Your task to perform on an android device: Open eBay Image 0: 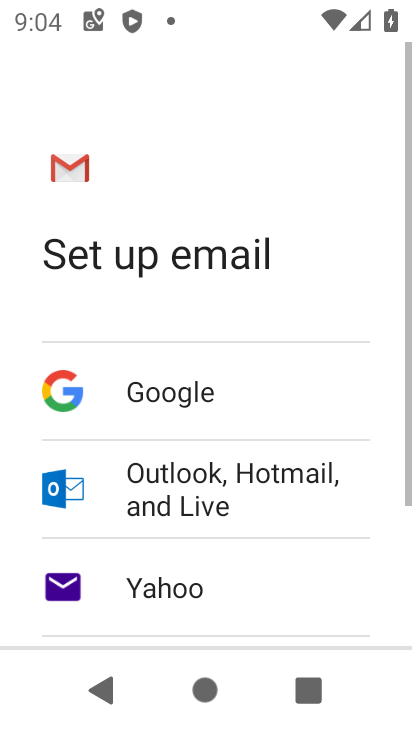
Step 0: press home button
Your task to perform on an android device: Open eBay Image 1: 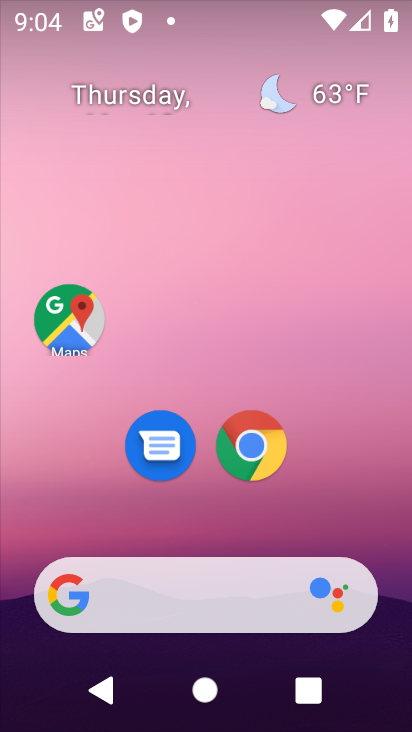
Step 1: click (250, 451)
Your task to perform on an android device: Open eBay Image 2: 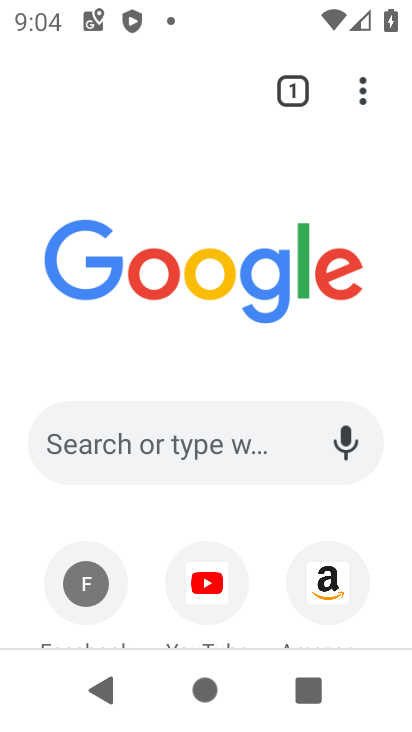
Step 2: click (217, 449)
Your task to perform on an android device: Open eBay Image 3: 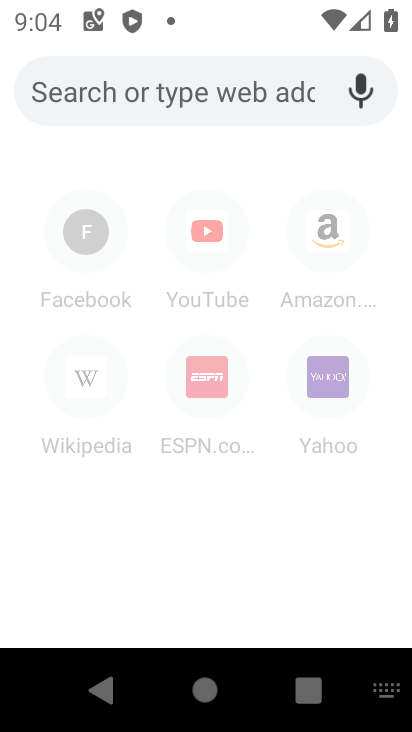
Step 3: type "ebay"
Your task to perform on an android device: Open eBay Image 4: 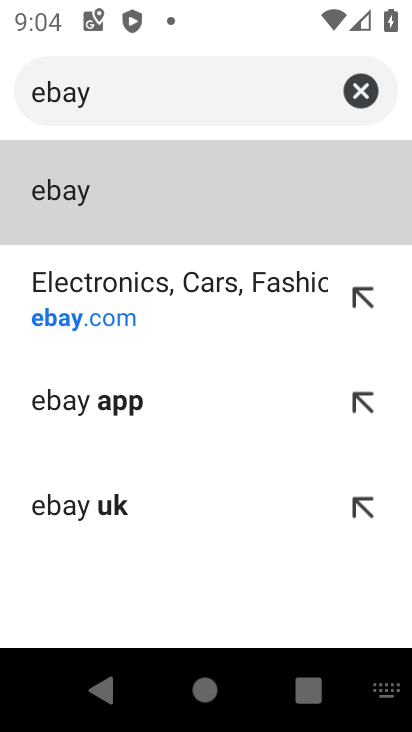
Step 4: click (154, 195)
Your task to perform on an android device: Open eBay Image 5: 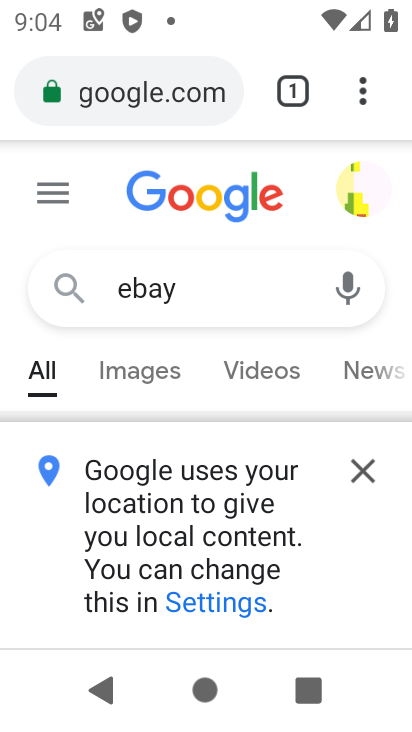
Step 5: click (367, 455)
Your task to perform on an android device: Open eBay Image 6: 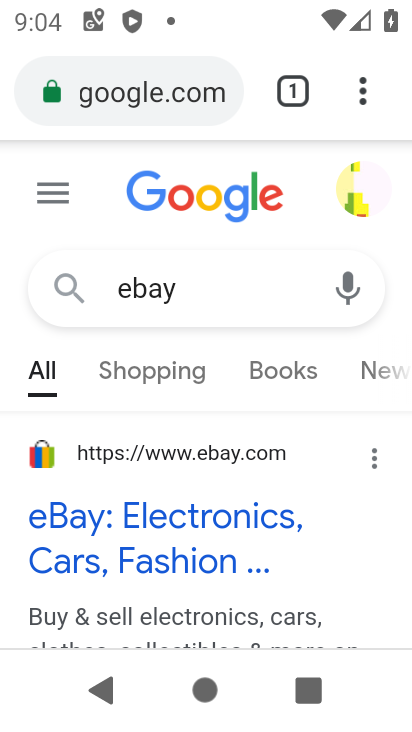
Step 6: task complete